Your task to perform on an android device: Open Maps and search for coffee Image 0: 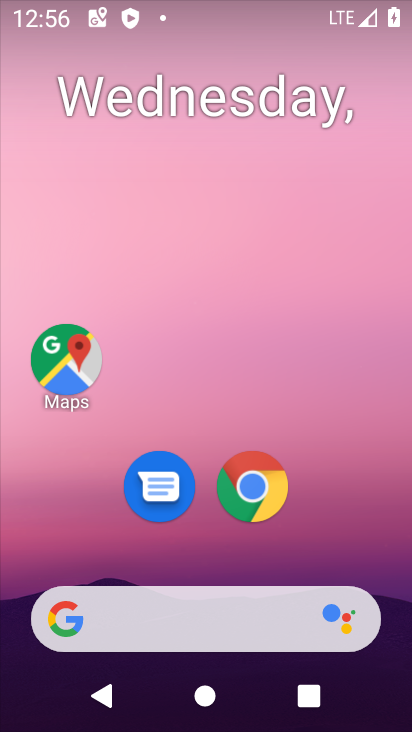
Step 0: drag from (343, 541) to (336, 71)
Your task to perform on an android device: Open Maps and search for coffee Image 1: 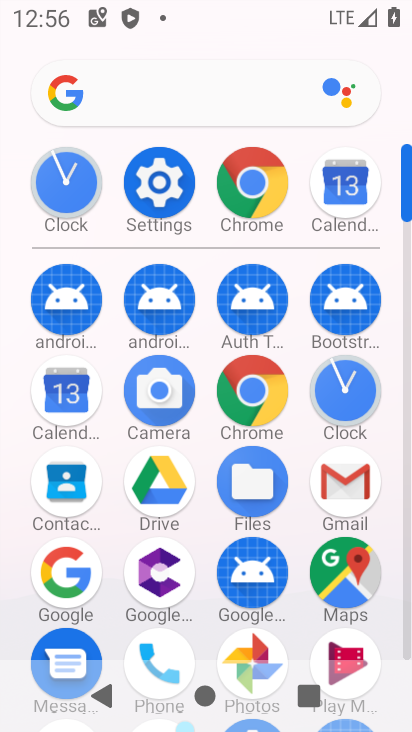
Step 1: click (351, 570)
Your task to perform on an android device: Open Maps and search for coffee Image 2: 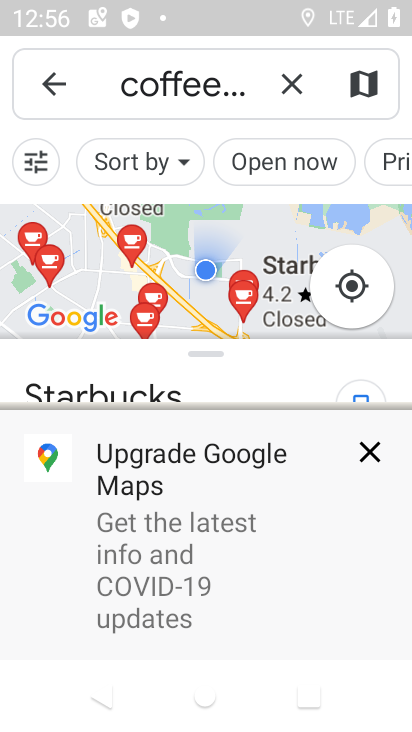
Step 2: task complete